Your task to perform on an android device: allow cookies in the chrome app Image 0: 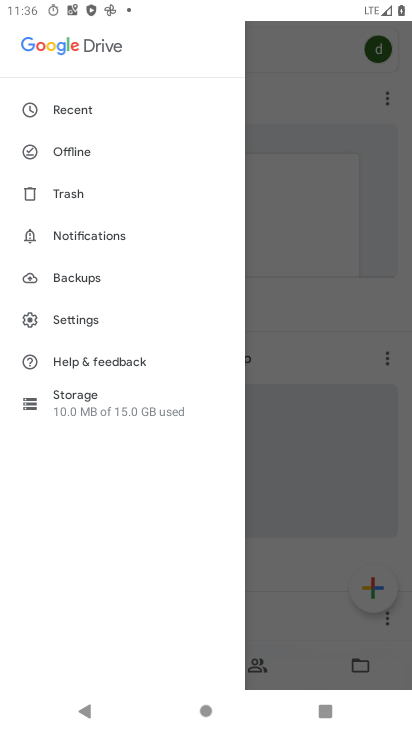
Step 0: press home button
Your task to perform on an android device: allow cookies in the chrome app Image 1: 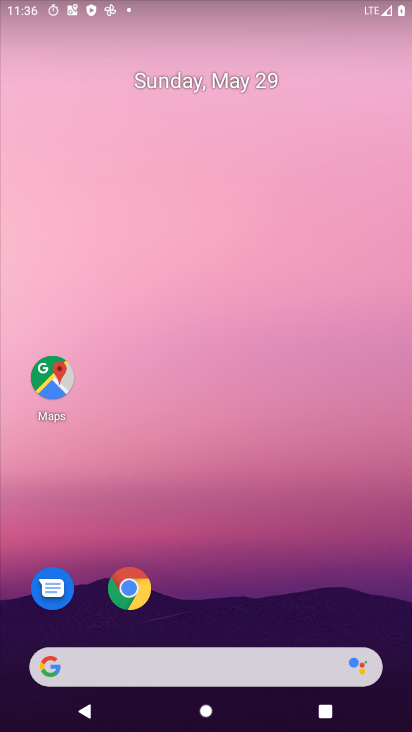
Step 1: drag from (328, 540) to (361, 6)
Your task to perform on an android device: allow cookies in the chrome app Image 2: 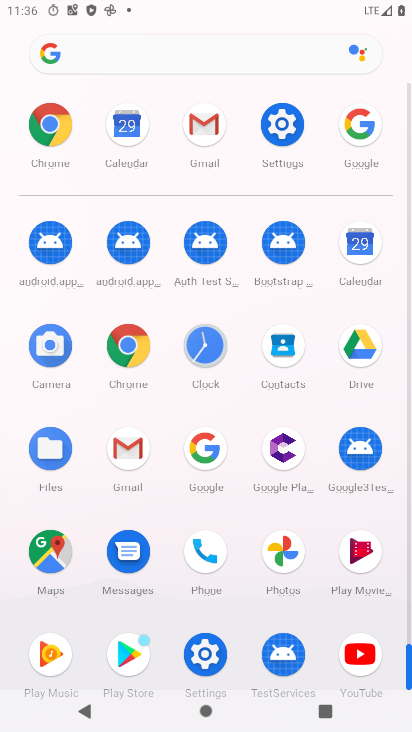
Step 2: click (143, 342)
Your task to perform on an android device: allow cookies in the chrome app Image 3: 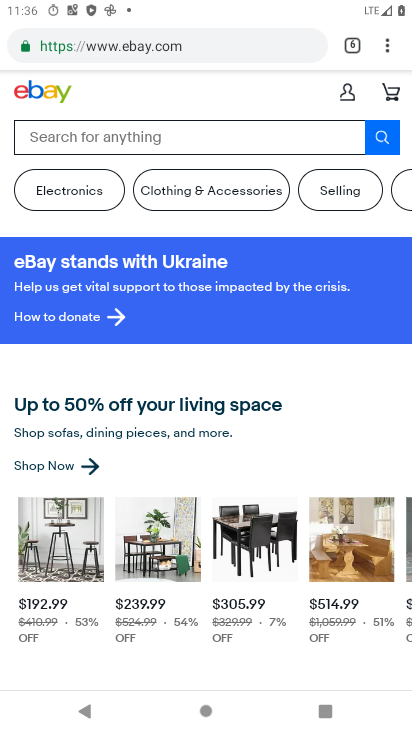
Step 3: click (384, 52)
Your task to perform on an android device: allow cookies in the chrome app Image 4: 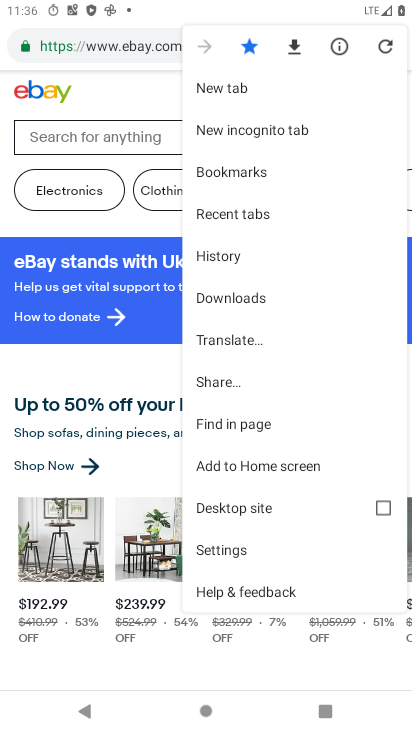
Step 4: click (256, 545)
Your task to perform on an android device: allow cookies in the chrome app Image 5: 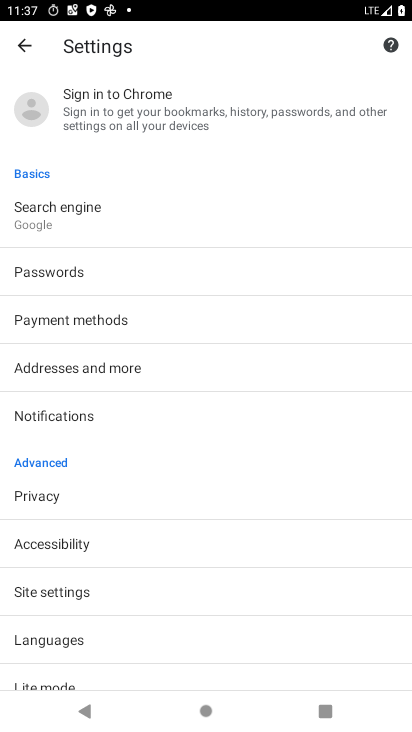
Step 5: drag from (179, 481) to (223, 225)
Your task to perform on an android device: allow cookies in the chrome app Image 6: 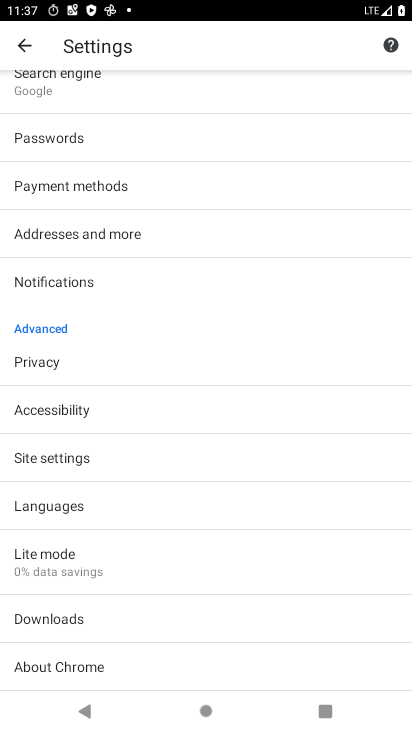
Step 6: drag from (225, 331) to (238, 409)
Your task to perform on an android device: allow cookies in the chrome app Image 7: 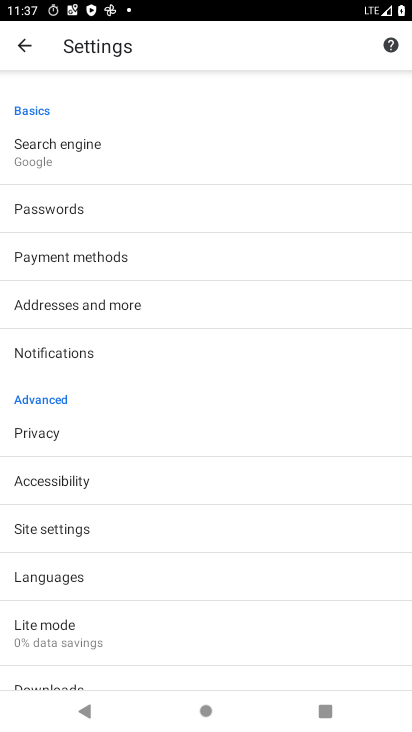
Step 7: click (115, 530)
Your task to perform on an android device: allow cookies in the chrome app Image 8: 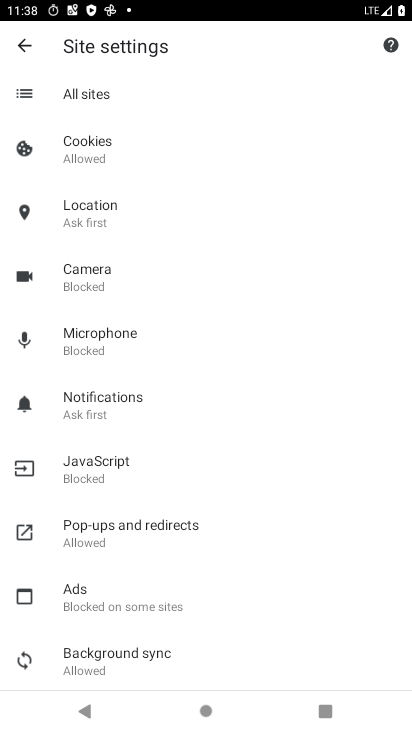
Step 8: task complete